Your task to perform on an android device: set the stopwatch Image 0: 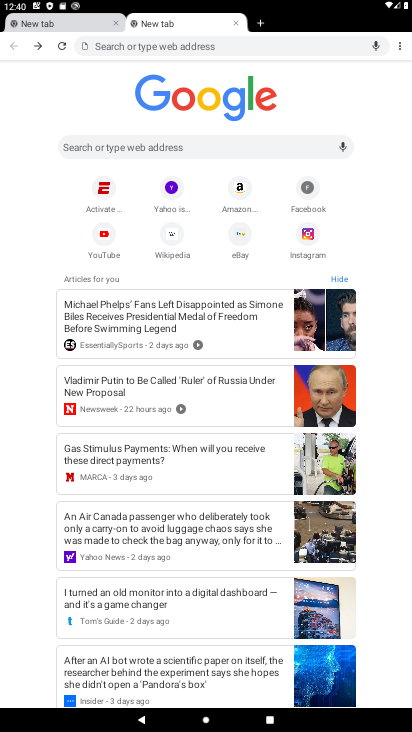
Step 0: click (205, 18)
Your task to perform on an android device: set the stopwatch Image 1: 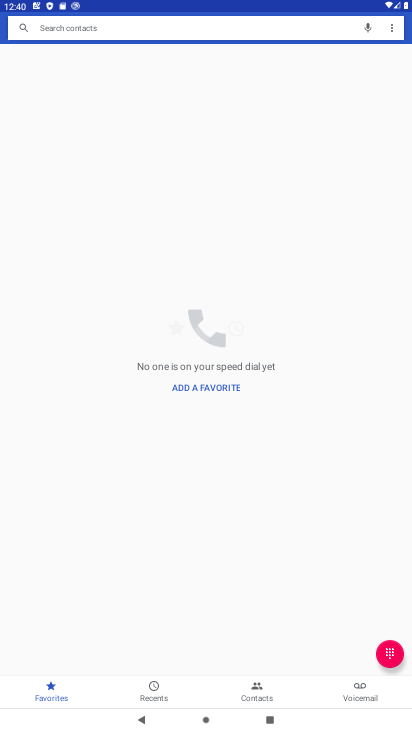
Step 1: press home button
Your task to perform on an android device: set the stopwatch Image 2: 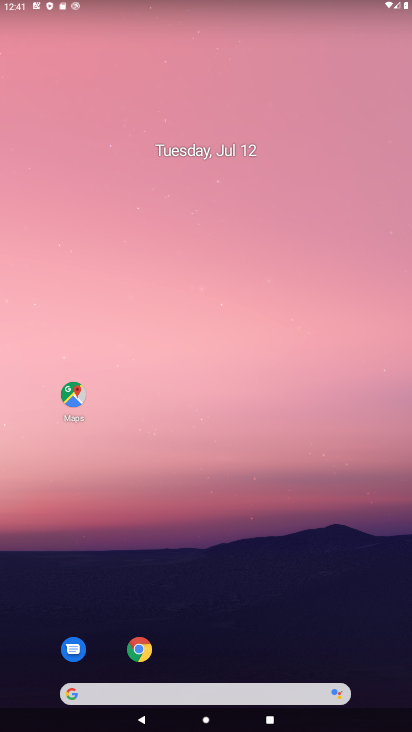
Step 2: drag from (368, 706) to (243, 55)
Your task to perform on an android device: set the stopwatch Image 3: 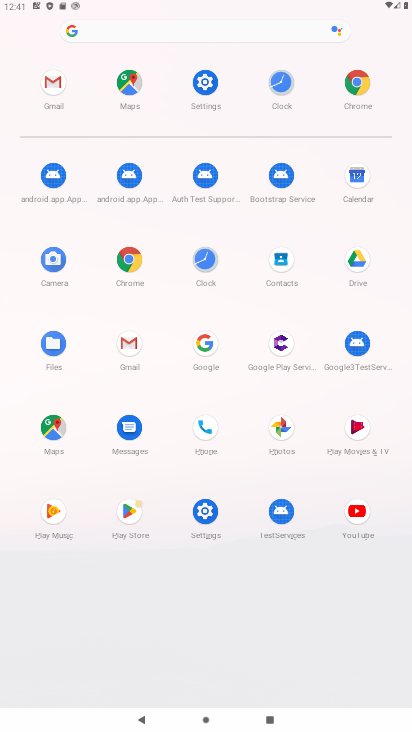
Step 3: click (206, 264)
Your task to perform on an android device: set the stopwatch Image 4: 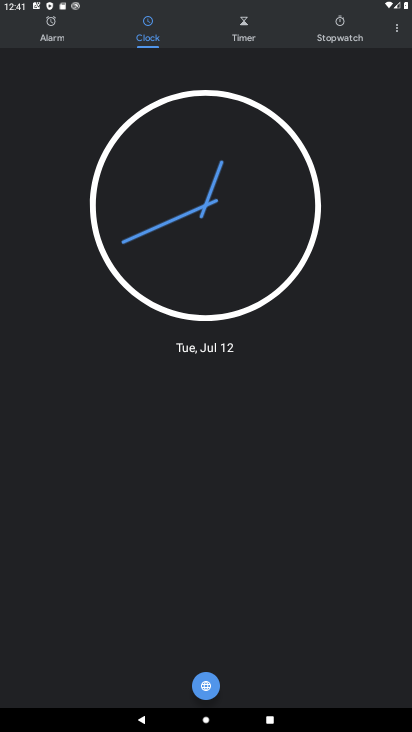
Step 4: click (336, 23)
Your task to perform on an android device: set the stopwatch Image 5: 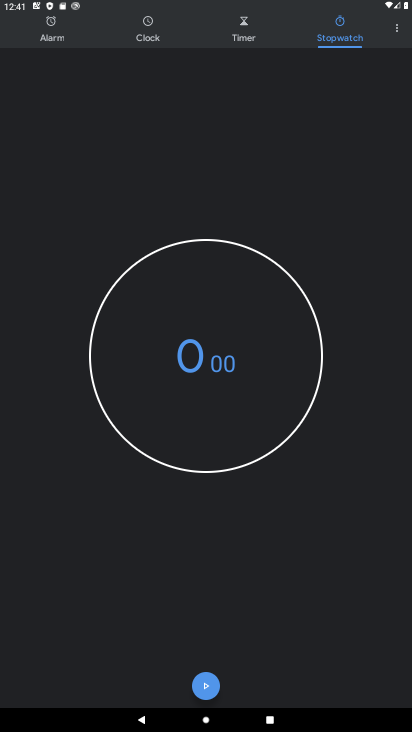
Step 5: click (202, 684)
Your task to perform on an android device: set the stopwatch Image 6: 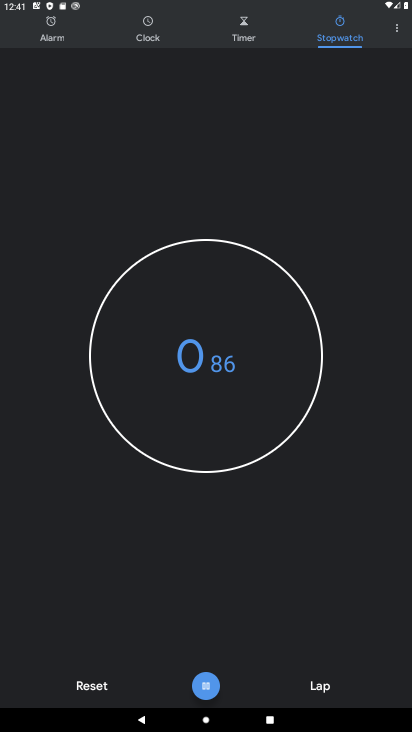
Step 6: click (202, 684)
Your task to perform on an android device: set the stopwatch Image 7: 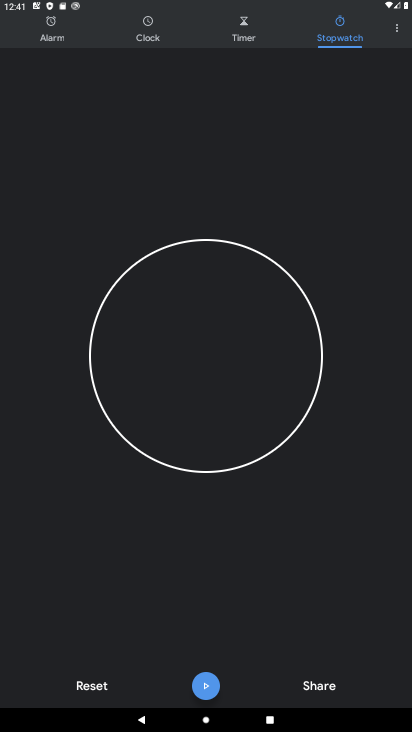
Step 7: task complete